Your task to perform on an android device: change your default location settings in chrome Image 0: 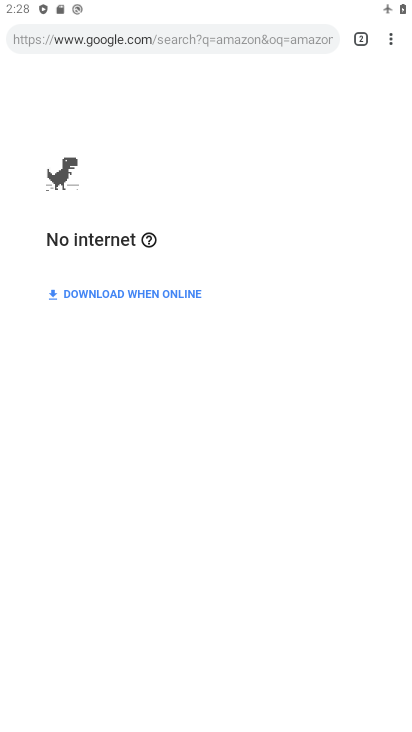
Step 0: press home button
Your task to perform on an android device: change your default location settings in chrome Image 1: 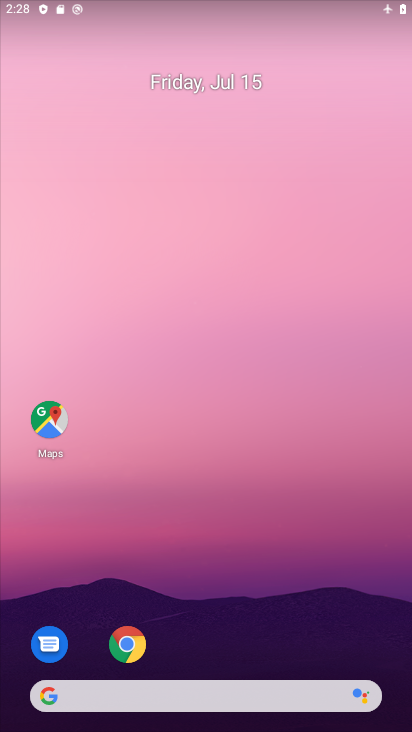
Step 1: drag from (227, 689) to (334, 6)
Your task to perform on an android device: change your default location settings in chrome Image 2: 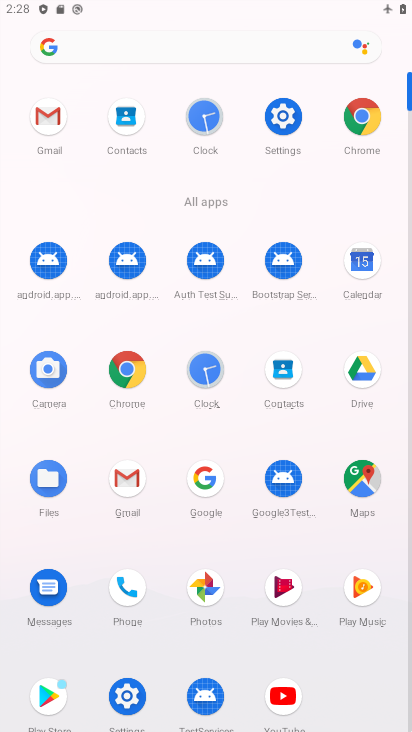
Step 2: click (136, 368)
Your task to perform on an android device: change your default location settings in chrome Image 3: 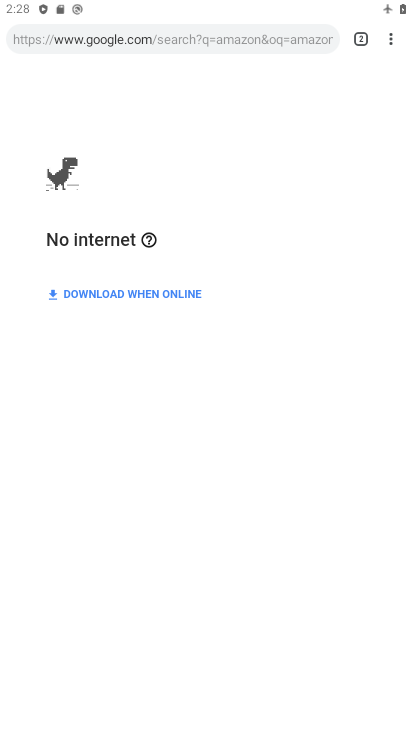
Step 3: drag from (387, 35) to (252, 444)
Your task to perform on an android device: change your default location settings in chrome Image 4: 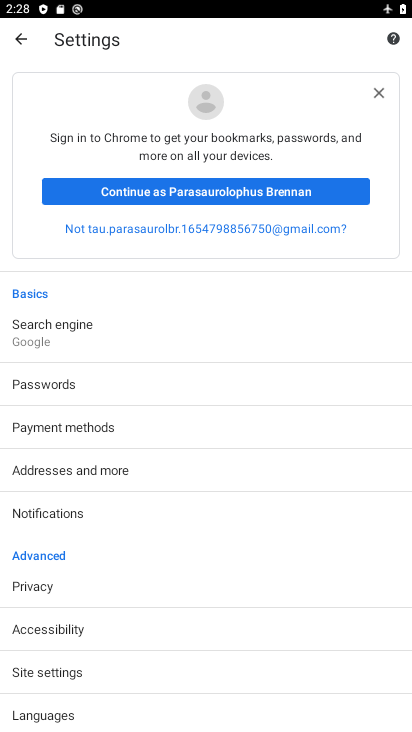
Step 4: drag from (120, 594) to (178, 269)
Your task to perform on an android device: change your default location settings in chrome Image 5: 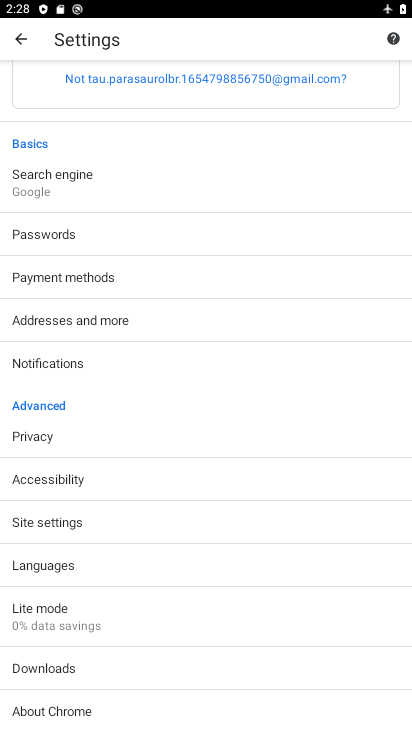
Step 5: click (81, 525)
Your task to perform on an android device: change your default location settings in chrome Image 6: 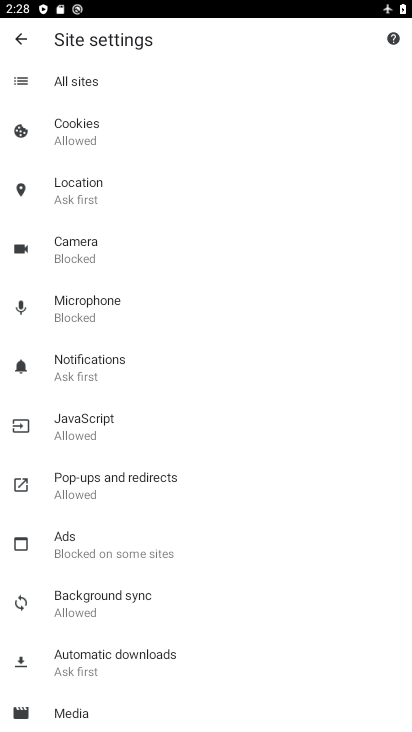
Step 6: click (97, 193)
Your task to perform on an android device: change your default location settings in chrome Image 7: 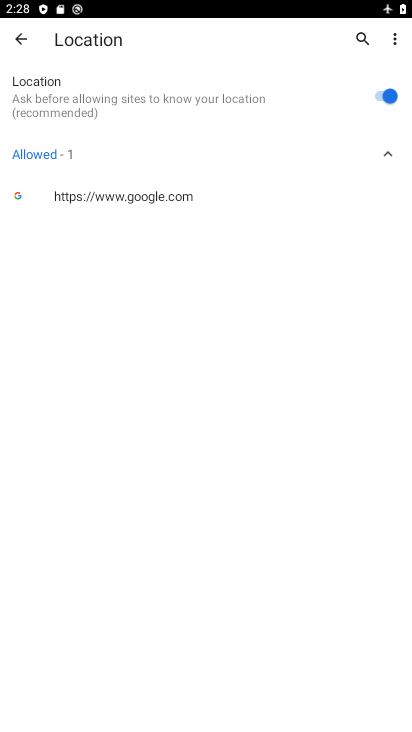
Step 7: task complete